Your task to perform on an android device: turn off notifications in google photos Image 0: 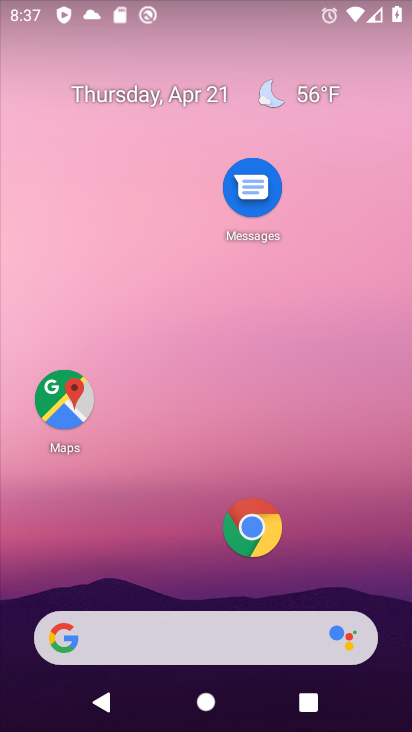
Step 0: drag from (161, 636) to (325, 195)
Your task to perform on an android device: turn off notifications in google photos Image 1: 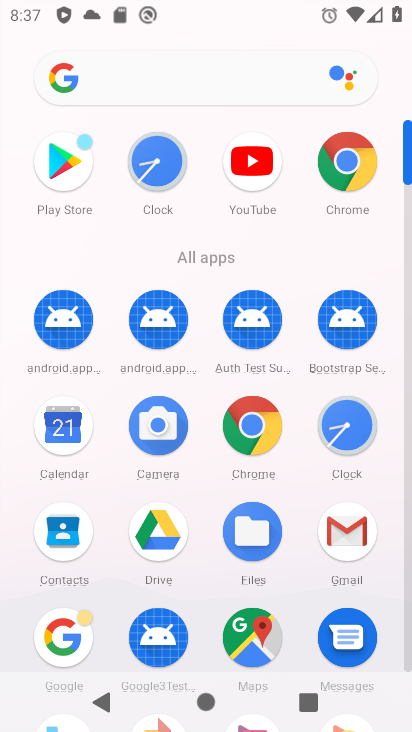
Step 1: drag from (199, 640) to (337, 160)
Your task to perform on an android device: turn off notifications in google photos Image 2: 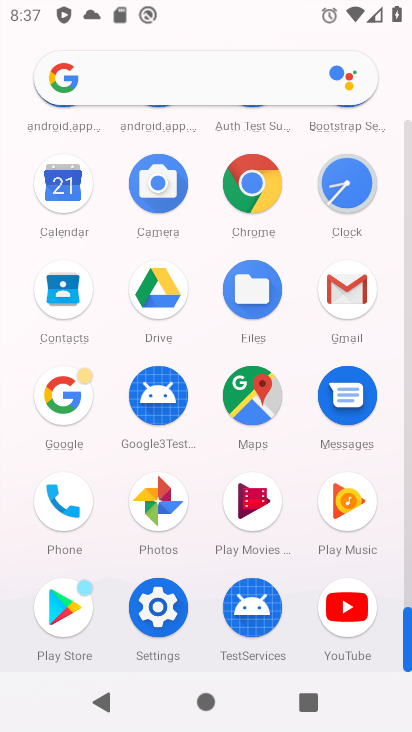
Step 2: click (159, 498)
Your task to perform on an android device: turn off notifications in google photos Image 3: 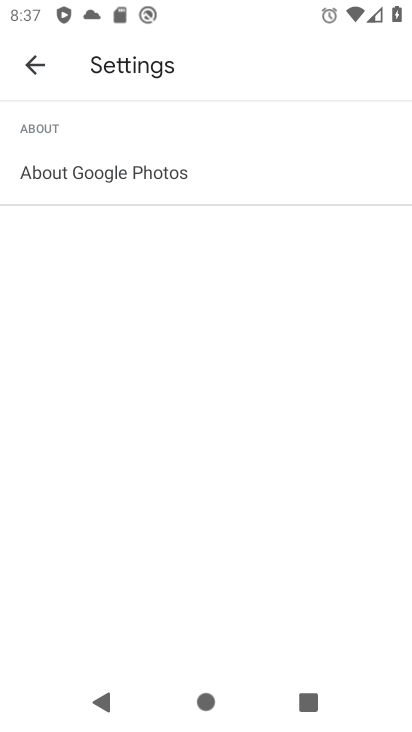
Step 3: click (31, 67)
Your task to perform on an android device: turn off notifications in google photos Image 4: 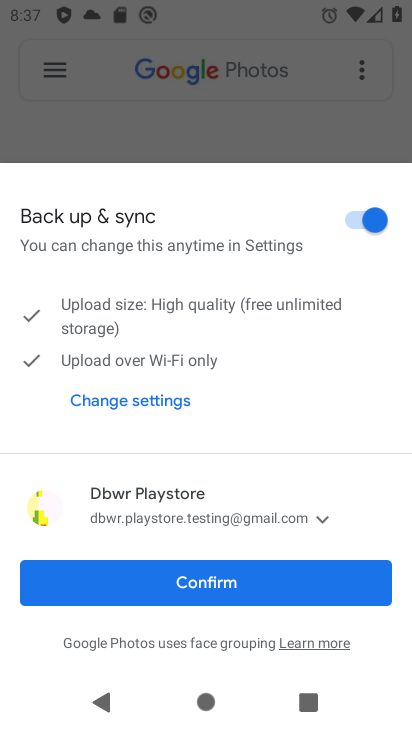
Step 4: click (201, 588)
Your task to perform on an android device: turn off notifications in google photos Image 5: 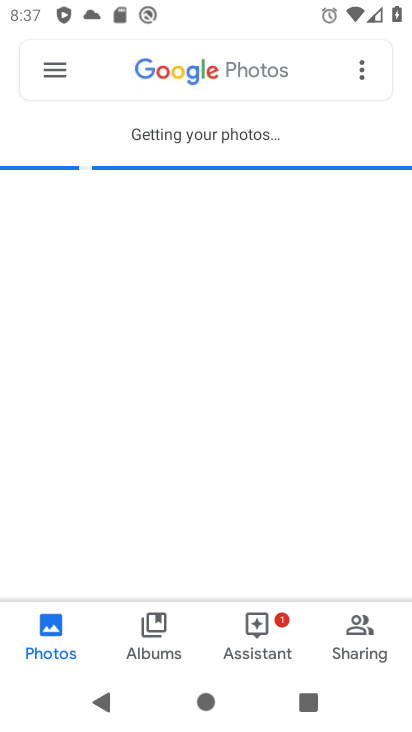
Step 5: click (50, 70)
Your task to perform on an android device: turn off notifications in google photos Image 6: 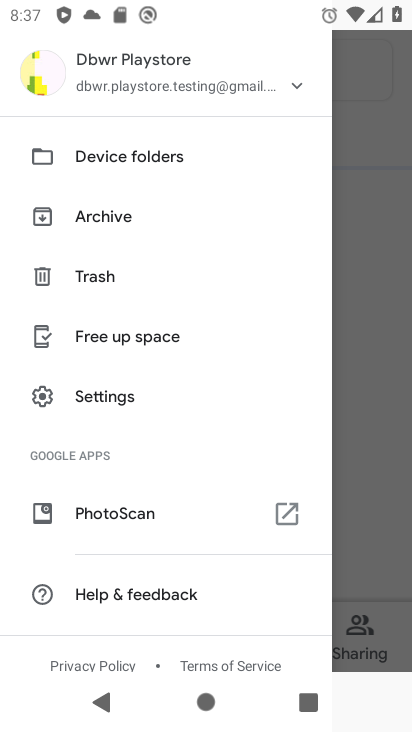
Step 6: drag from (169, 552) to (324, 125)
Your task to perform on an android device: turn off notifications in google photos Image 7: 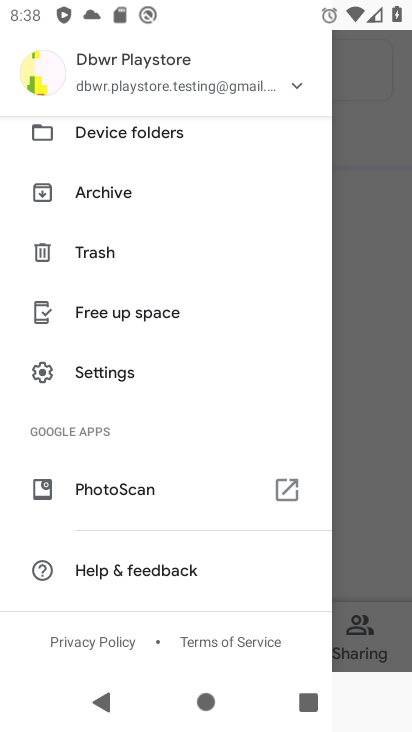
Step 7: click (109, 368)
Your task to perform on an android device: turn off notifications in google photos Image 8: 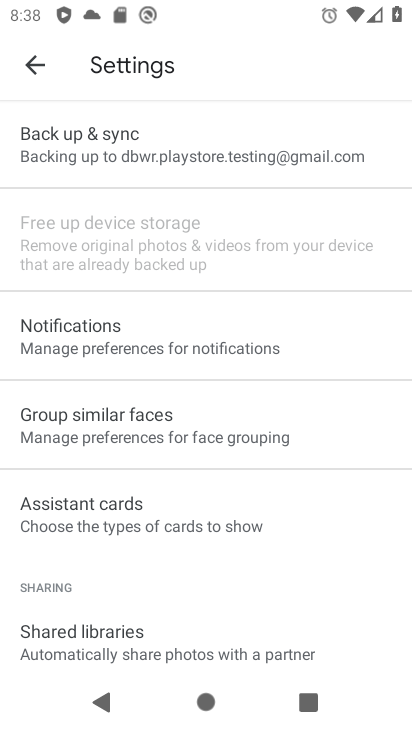
Step 8: click (117, 334)
Your task to perform on an android device: turn off notifications in google photos Image 9: 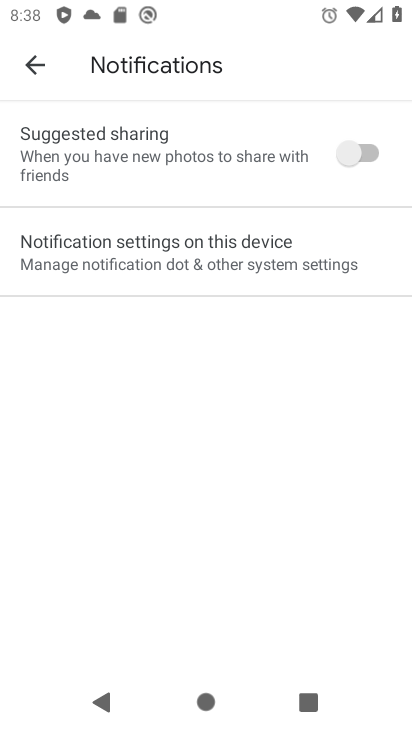
Step 9: click (177, 250)
Your task to perform on an android device: turn off notifications in google photos Image 10: 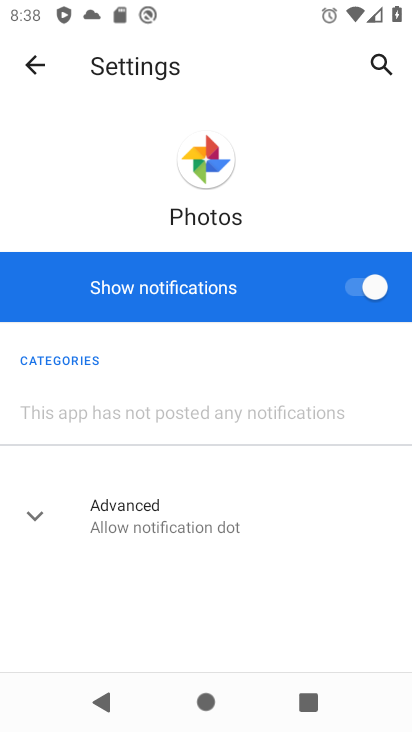
Step 10: click (356, 281)
Your task to perform on an android device: turn off notifications in google photos Image 11: 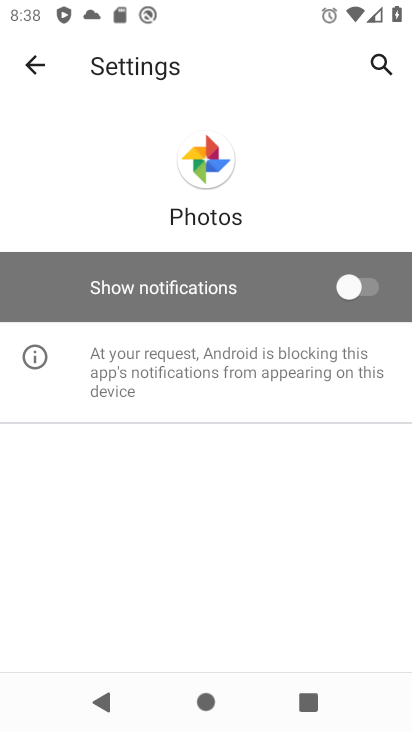
Step 11: task complete